Your task to perform on an android device: turn on showing notifications on the lock screen Image 0: 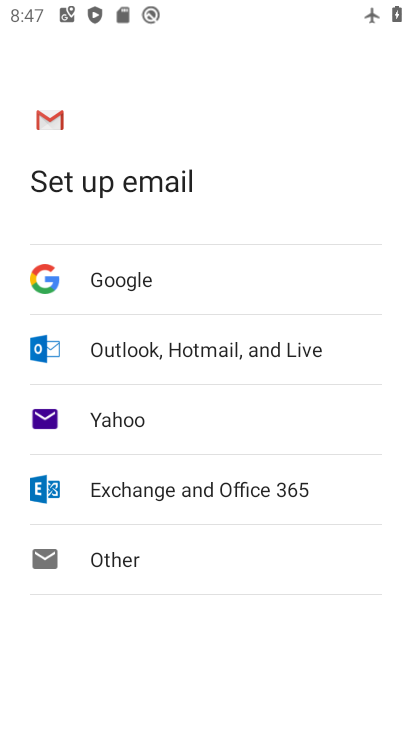
Step 0: press home button
Your task to perform on an android device: turn on showing notifications on the lock screen Image 1: 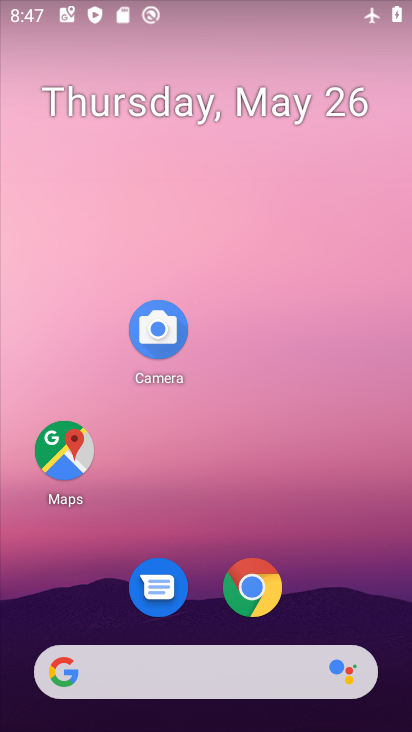
Step 1: drag from (208, 619) to (229, 324)
Your task to perform on an android device: turn on showing notifications on the lock screen Image 2: 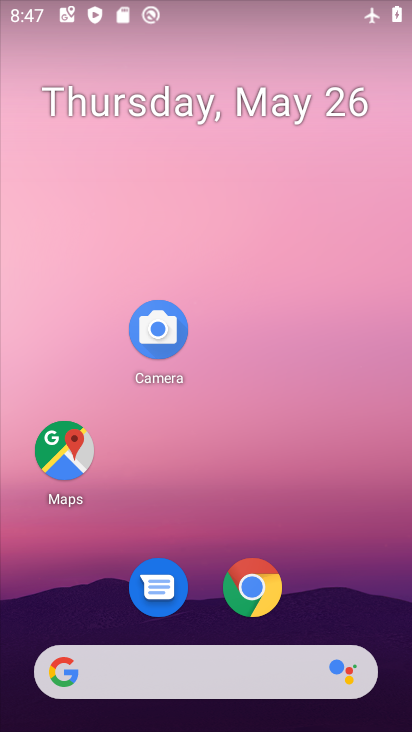
Step 2: drag from (200, 555) to (250, 199)
Your task to perform on an android device: turn on showing notifications on the lock screen Image 3: 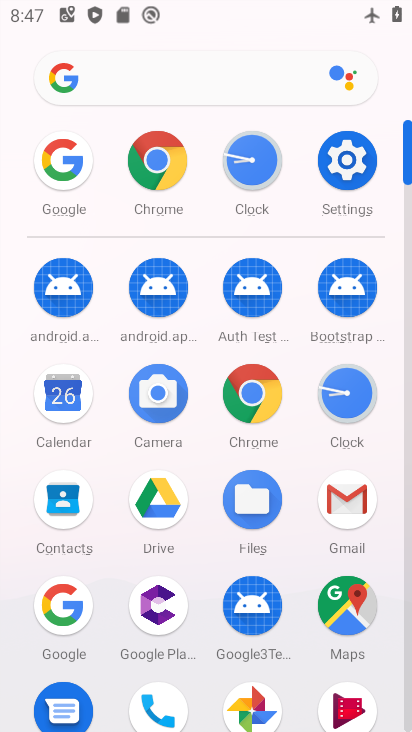
Step 3: click (347, 160)
Your task to perform on an android device: turn on showing notifications on the lock screen Image 4: 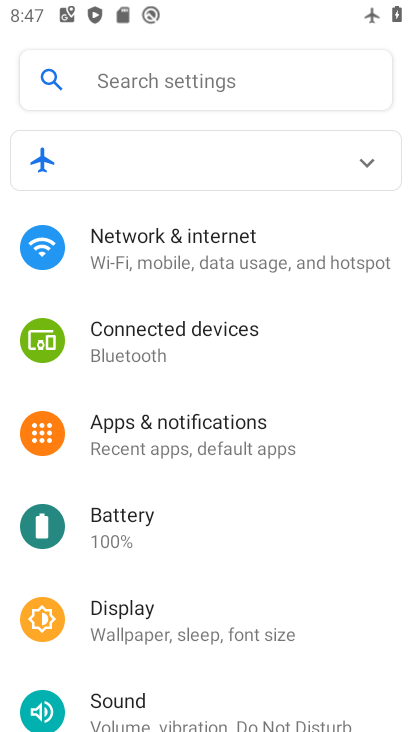
Step 4: drag from (218, 577) to (286, 282)
Your task to perform on an android device: turn on showing notifications on the lock screen Image 5: 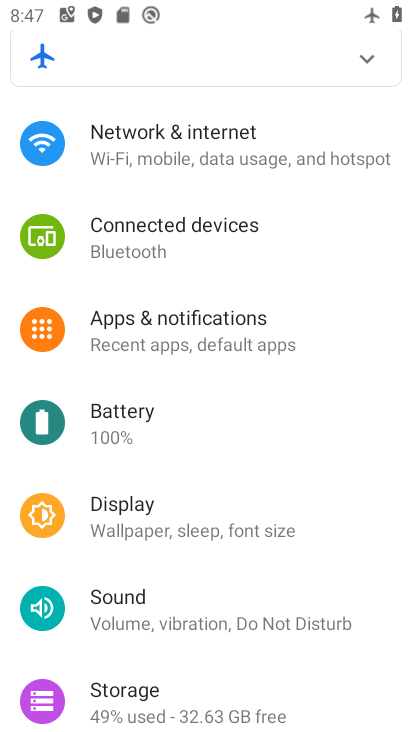
Step 5: drag from (252, 577) to (262, 292)
Your task to perform on an android device: turn on showing notifications on the lock screen Image 6: 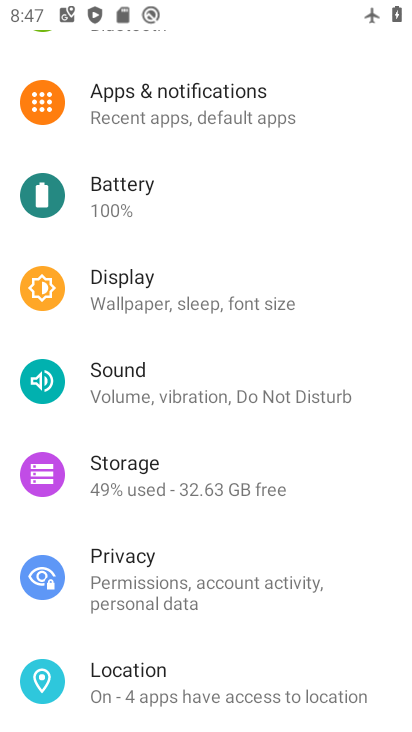
Step 6: click (227, 116)
Your task to perform on an android device: turn on showing notifications on the lock screen Image 7: 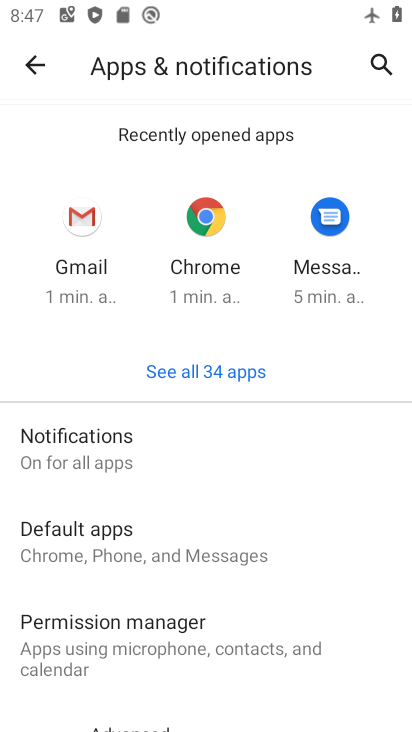
Step 7: click (214, 462)
Your task to perform on an android device: turn on showing notifications on the lock screen Image 8: 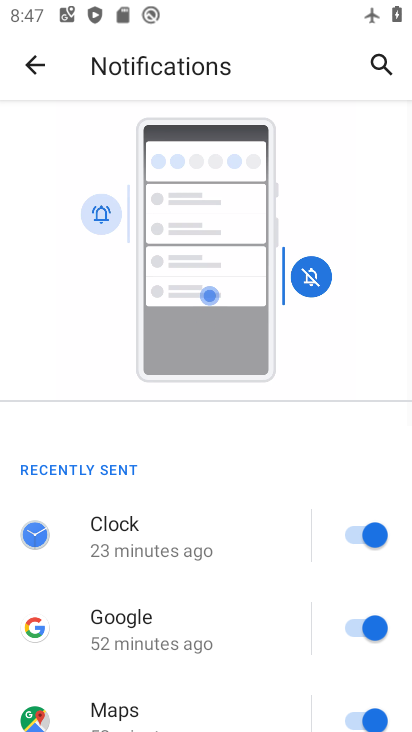
Step 8: drag from (237, 645) to (245, 375)
Your task to perform on an android device: turn on showing notifications on the lock screen Image 9: 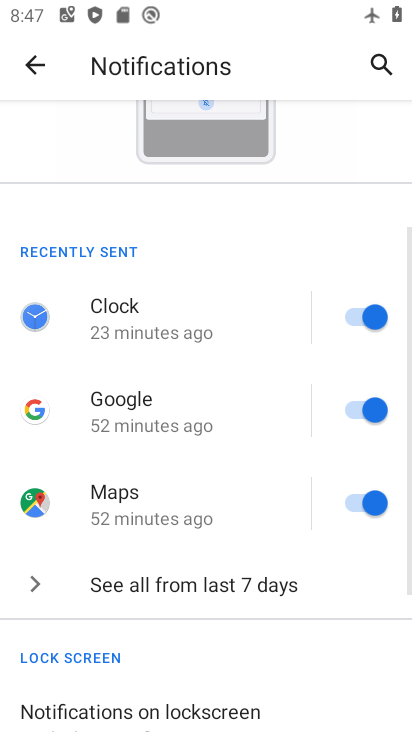
Step 9: drag from (247, 634) to (248, 403)
Your task to perform on an android device: turn on showing notifications on the lock screen Image 10: 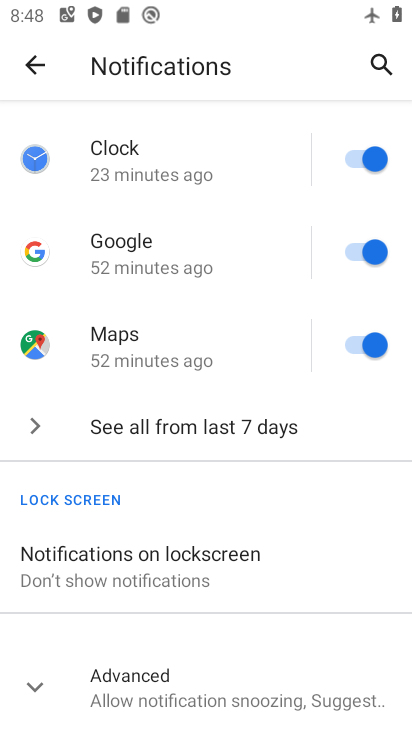
Step 10: click (172, 569)
Your task to perform on an android device: turn on showing notifications on the lock screen Image 11: 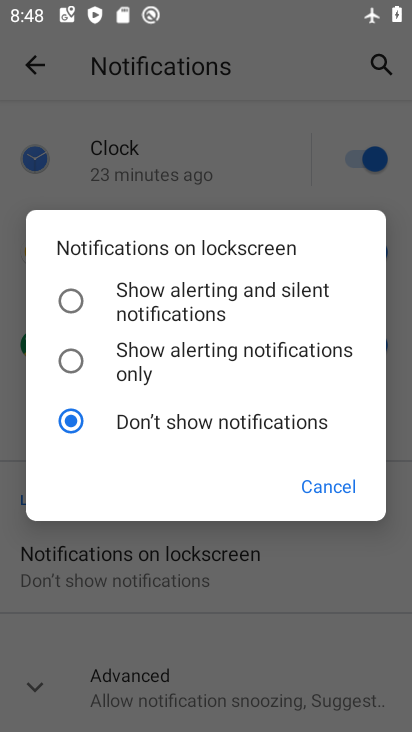
Step 11: click (113, 287)
Your task to perform on an android device: turn on showing notifications on the lock screen Image 12: 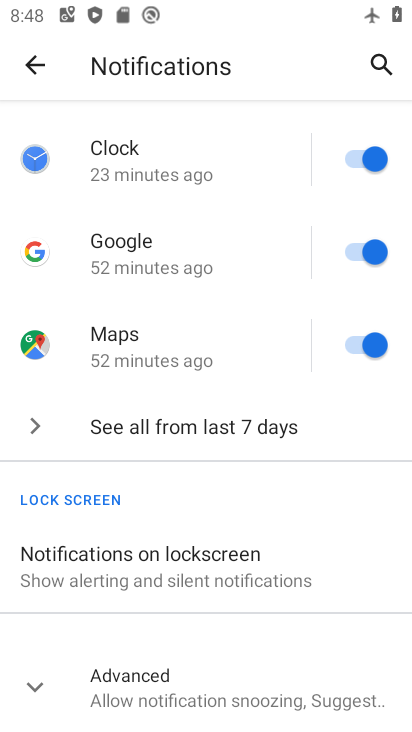
Step 12: task complete